Your task to perform on an android device: Go to Yahoo.com Image 0: 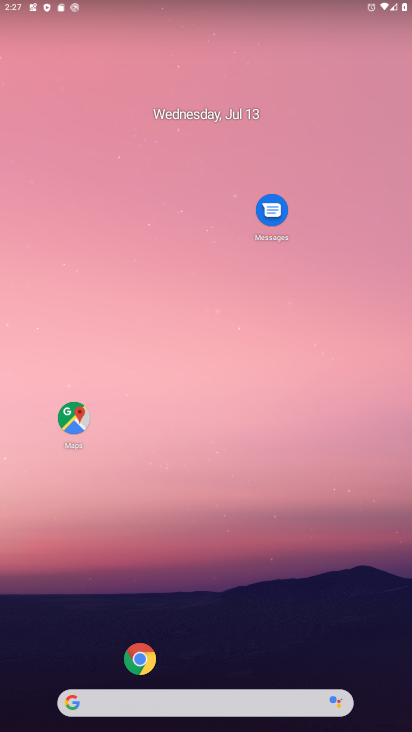
Step 0: click (107, 705)
Your task to perform on an android device: Go to Yahoo.com Image 1: 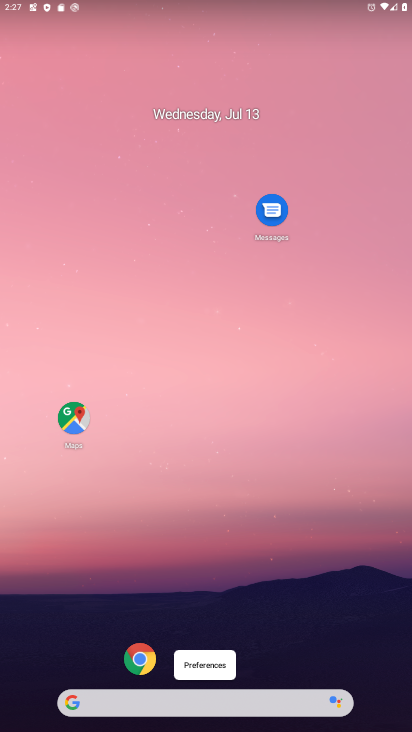
Step 1: click (118, 705)
Your task to perform on an android device: Go to Yahoo.com Image 2: 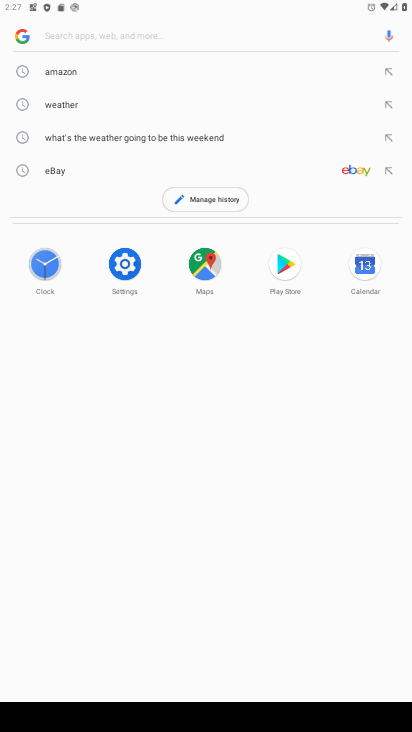
Step 2: type " Yahoo.com"
Your task to perform on an android device: Go to Yahoo.com Image 3: 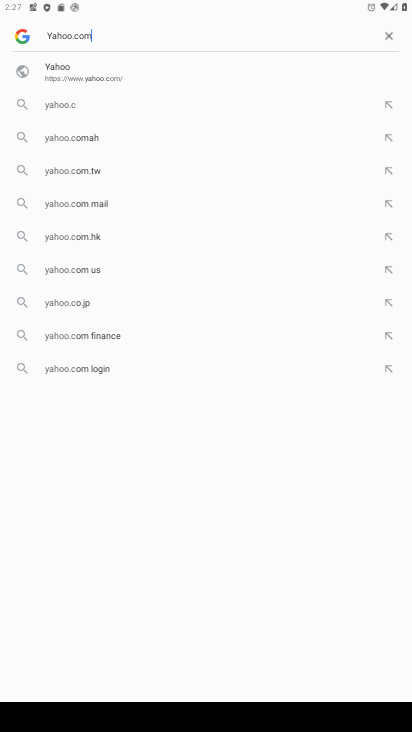
Step 3: type ""
Your task to perform on an android device: Go to Yahoo.com Image 4: 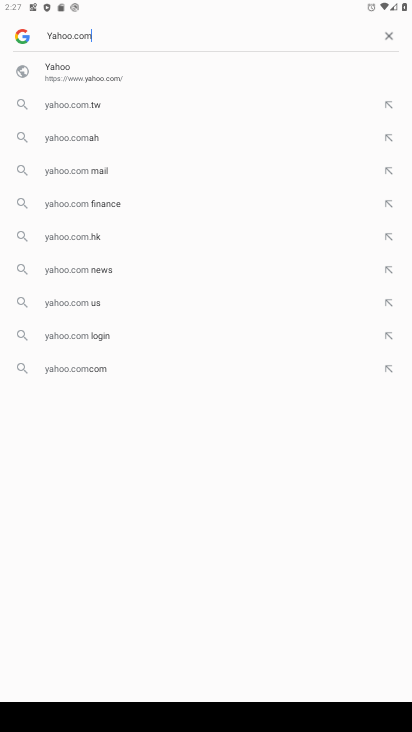
Step 4: type ""
Your task to perform on an android device: Go to Yahoo.com Image 5: 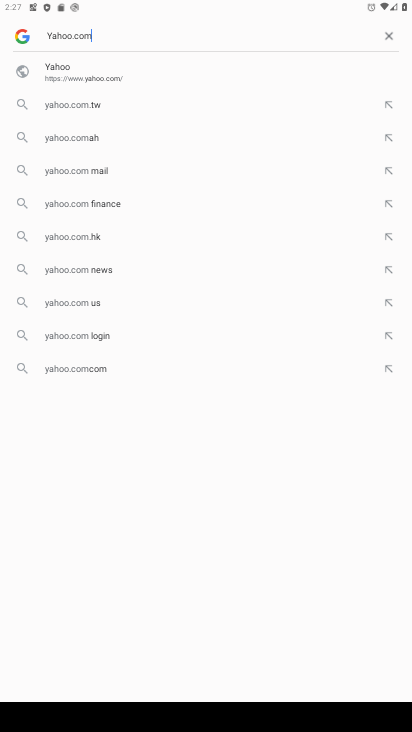
Step 5: click (105, 74)
Your task to perform on an android device: Go to Yahoo.com Image 6: 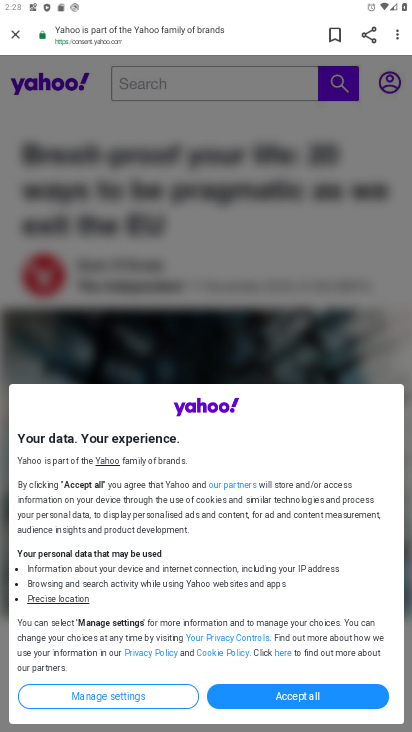
Step 6: task complete